Your task to perform on an android device: Is it going to rain tomorrow? Image 0: 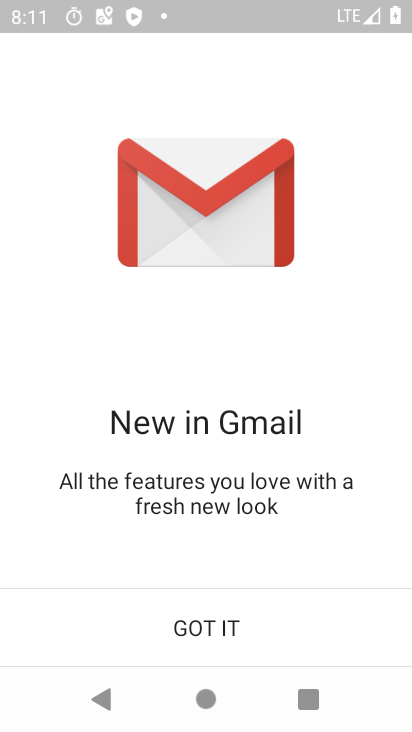
Step 0: press home button
Your task to perform on an android device: Is it going to rain tomorrow? Image 1: 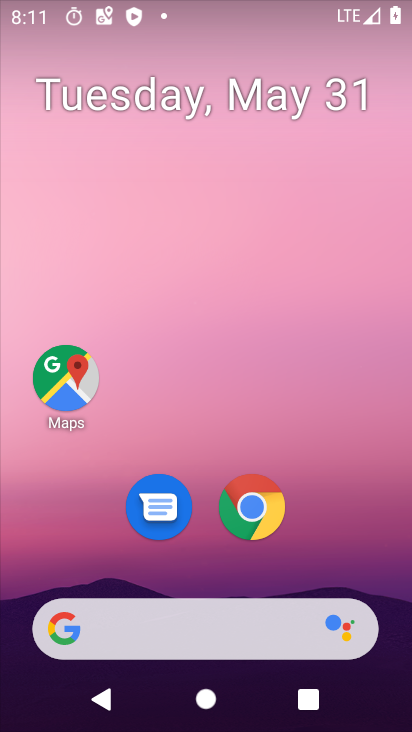
Step 1: drag from (44, 551) to (220, 192)
Your task to perform on an android device: Is it going to rain tomorrow? Image 2: 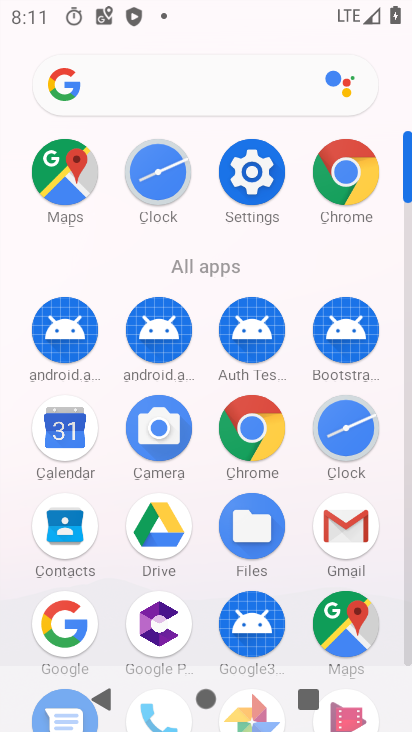
Step 2: click (50, 416)
Your task to perform on an android device: Is it going to rain tomorrow? Image 3: 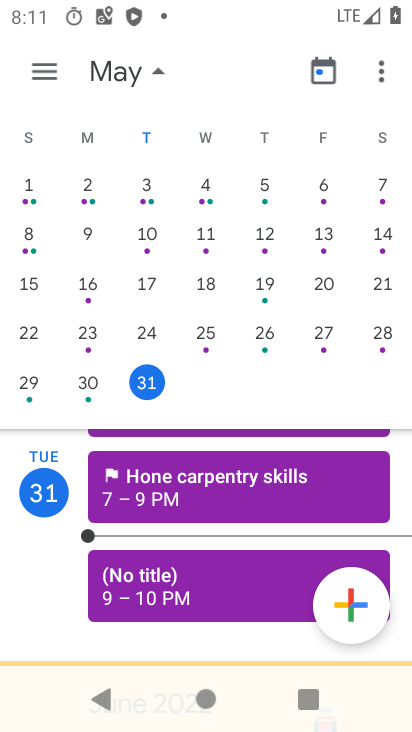
Step 3: task complete